Your task to perform on an android device: clear history in the chrome app Image 0: 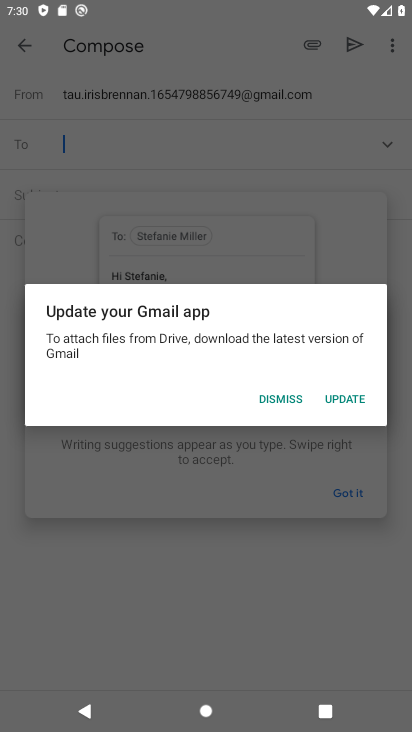
Step 0: press home button
Your task to perform on an android device: clear history in the chrome app Image 1: 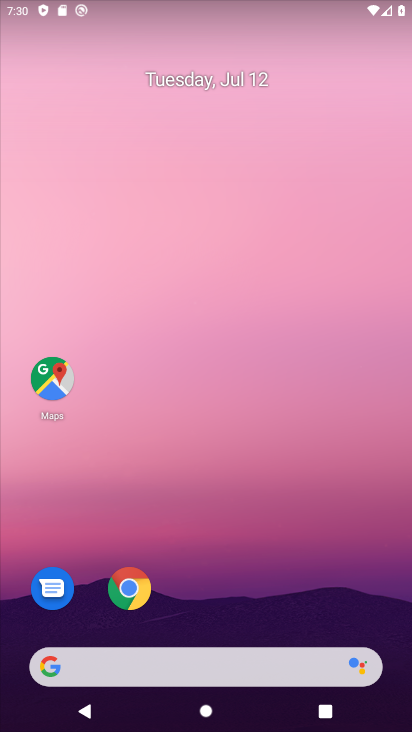
Step 1: drag from (214, 566) to (222, 163)
Your task to perform on an android device: clear history in the chrome app Image 2: 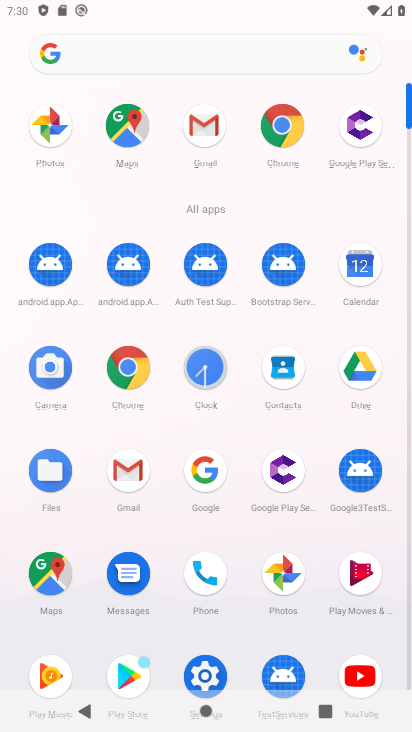
Step 2: click (290, 139)
Your task to perform on an android device: clear history in the chrome app Image 3: 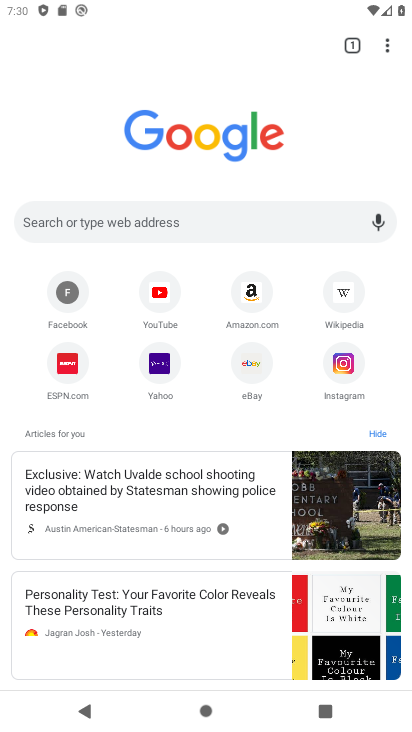
Step 3: task complete